Your task to perform on an android device: toggle translation in the chrome app Image 0: 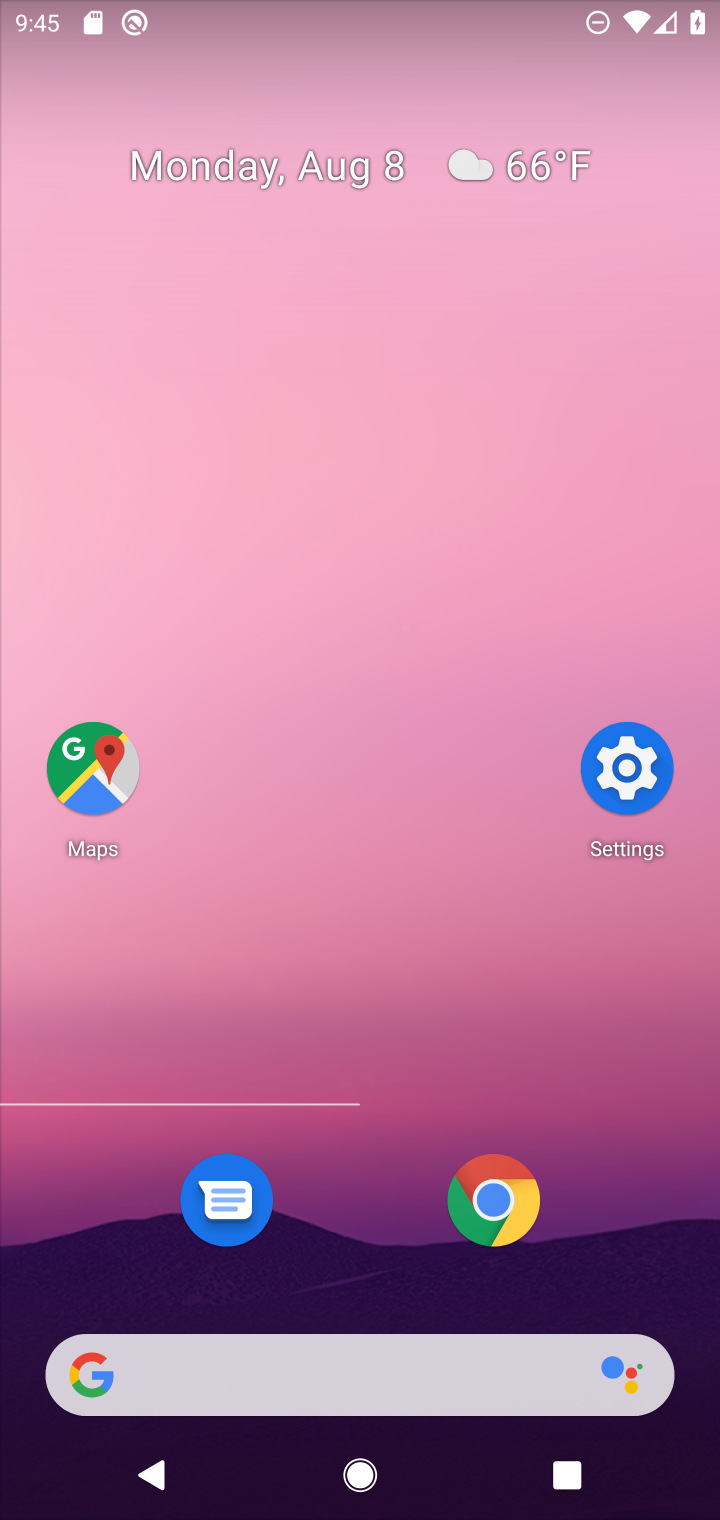
Step 0: press home button
Your task to perform on an android device: toggle translation in the chrome app Image 1: 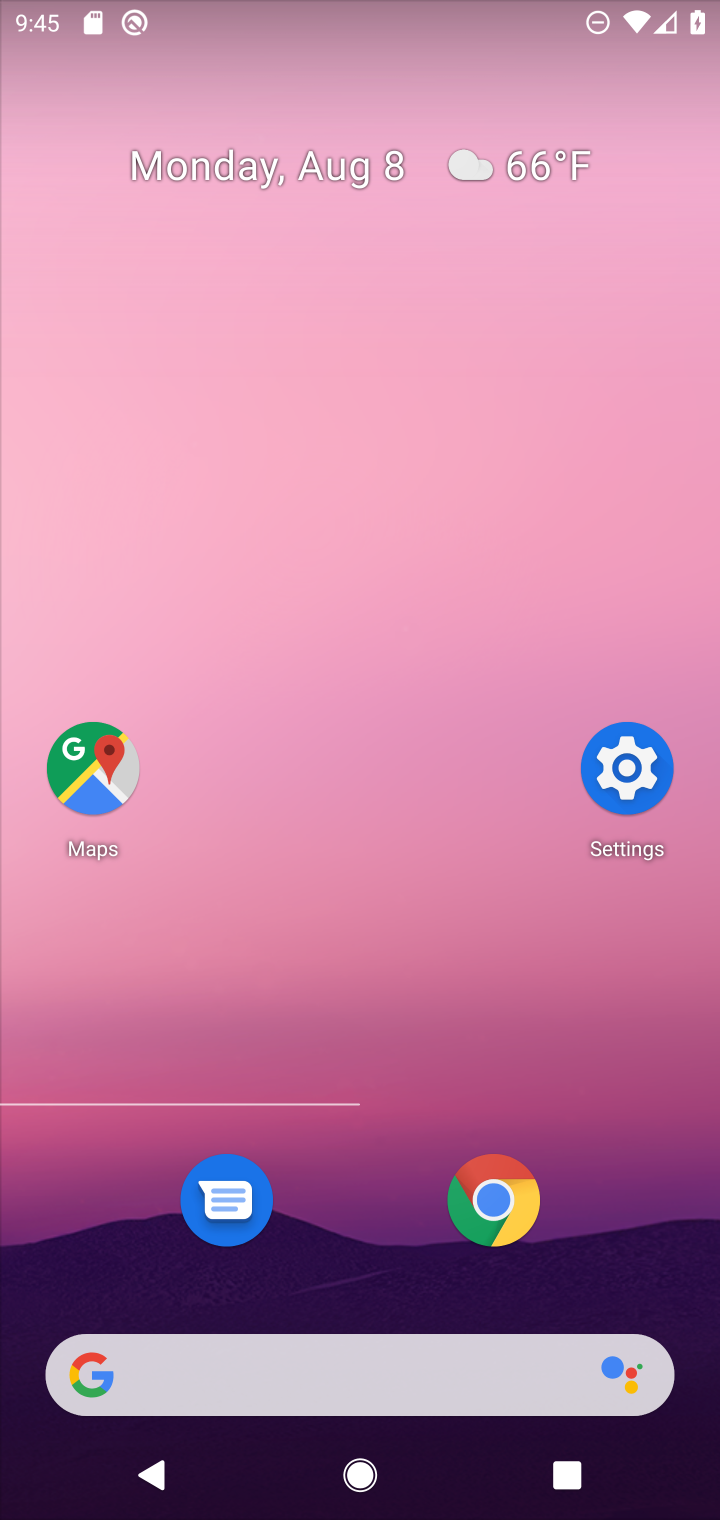
Step 1: click (491, 1202)
Your task to perform on an android device: toggle translation in the chrome app Image 2: 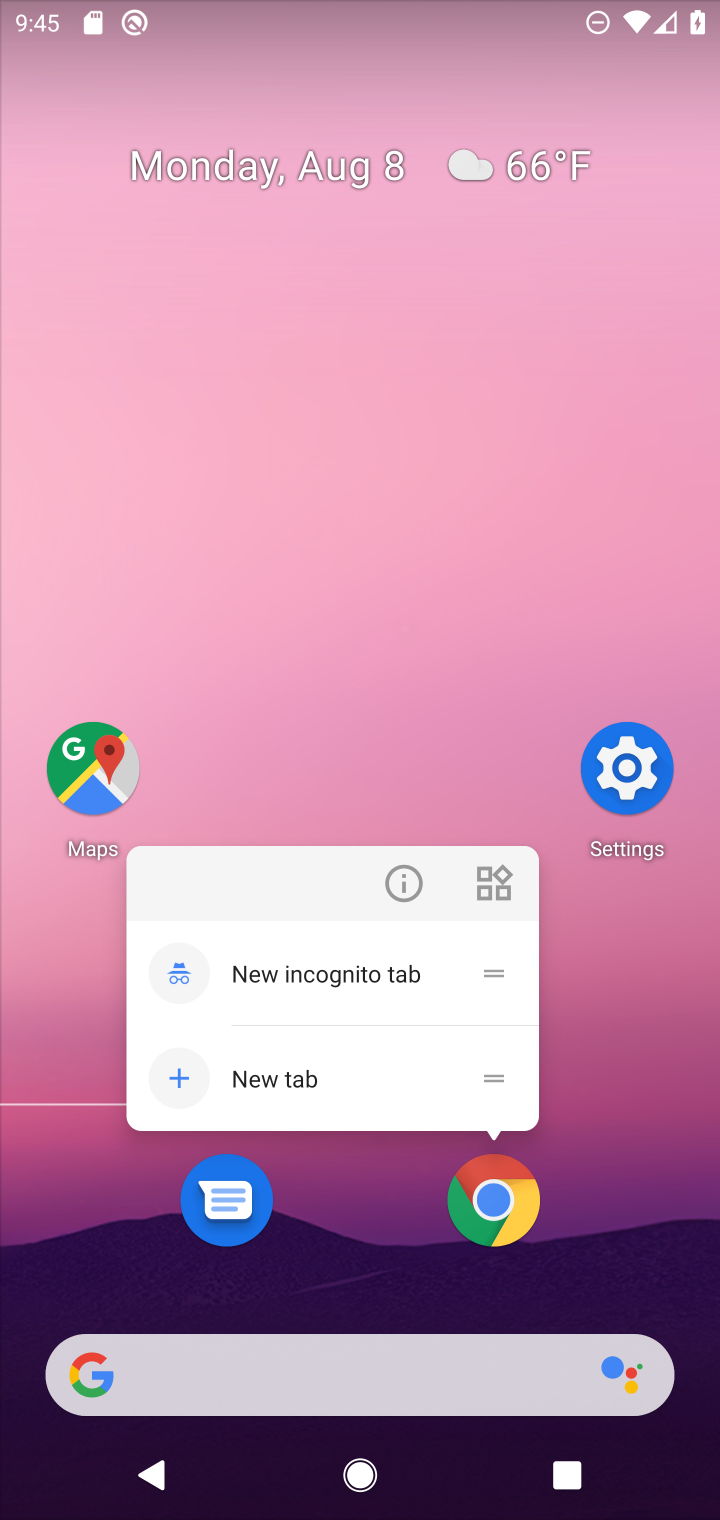
Step 2: click (491, 1204)
Your task to perform on an android device: toggle translation in the chrome app Image 3: 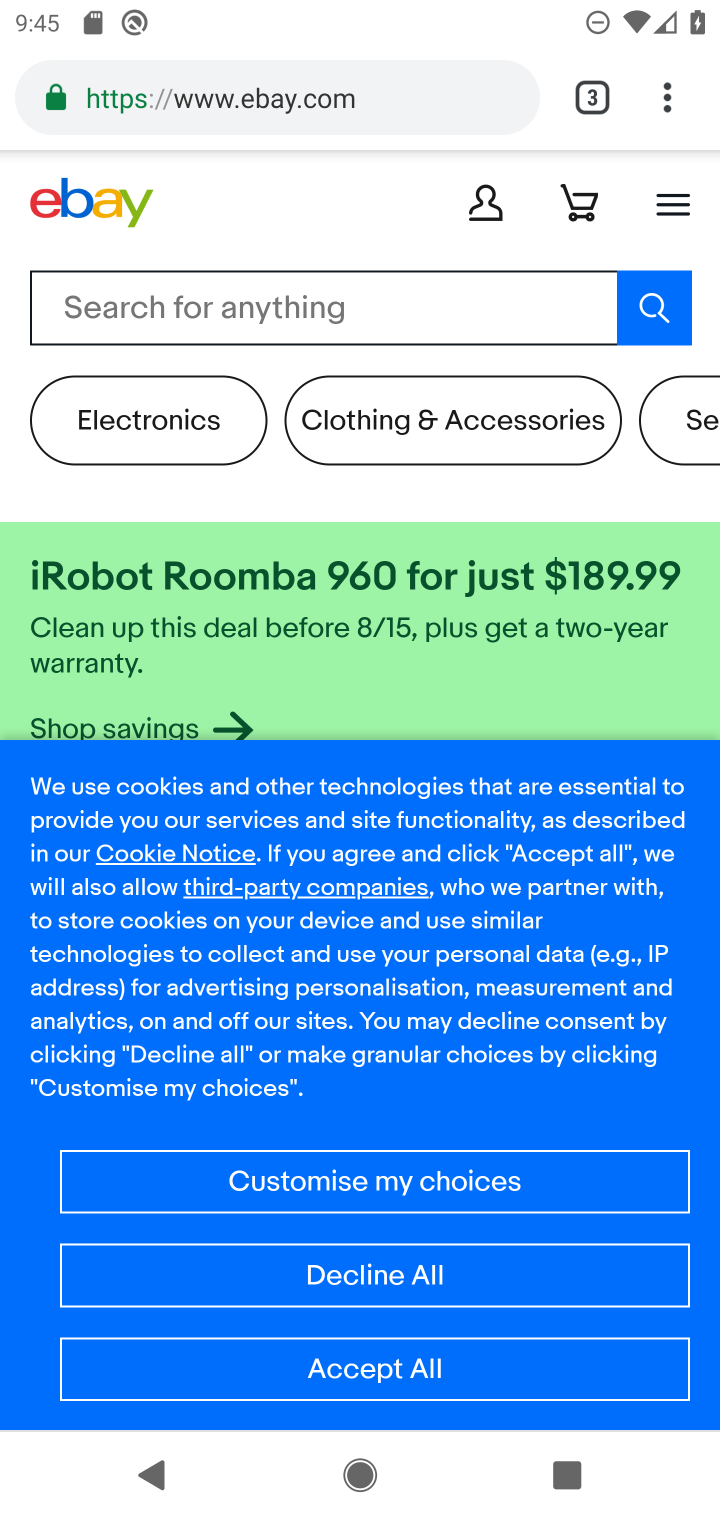
Step 3: drag from (664, 92) to (440, 1278)
Your task to perform on an android device: toggle translation in the chrome app Image 4: 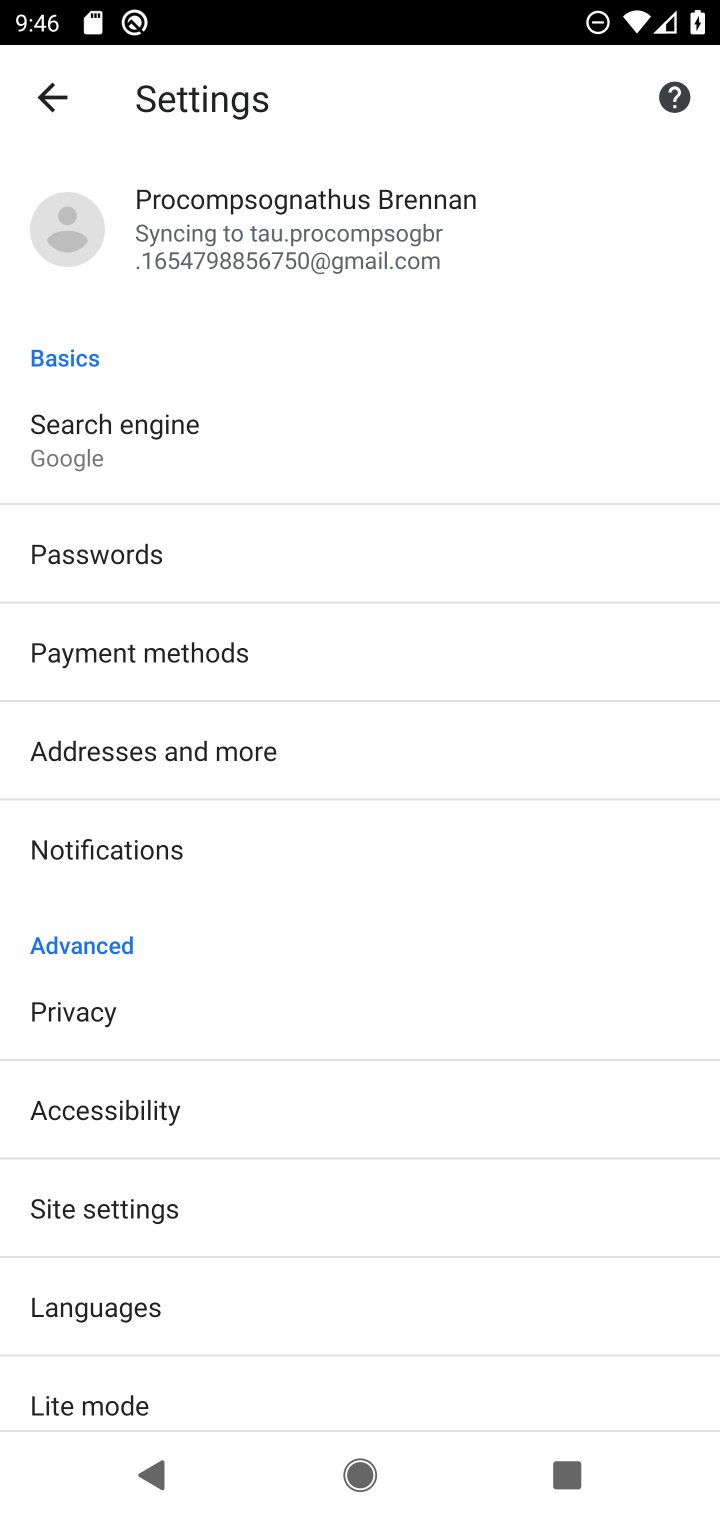
Step 4: drag from (377, 1210) to (558, 686)
Your task to perform on an android device: toggle translation in the chrome app Image 5: 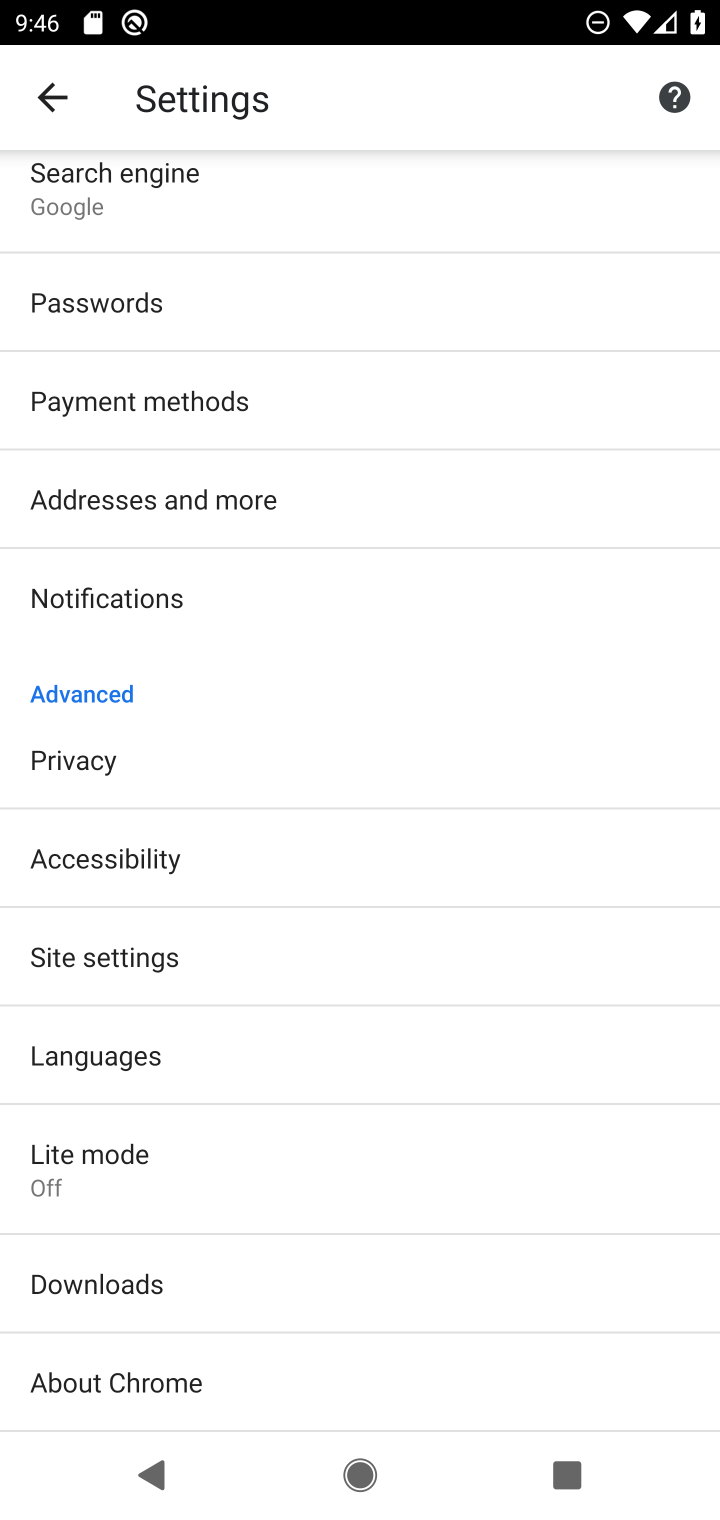
Step 5: click (123, 1041)
Your task to perform on an android device: toggle translation in the chrome app Image 6: 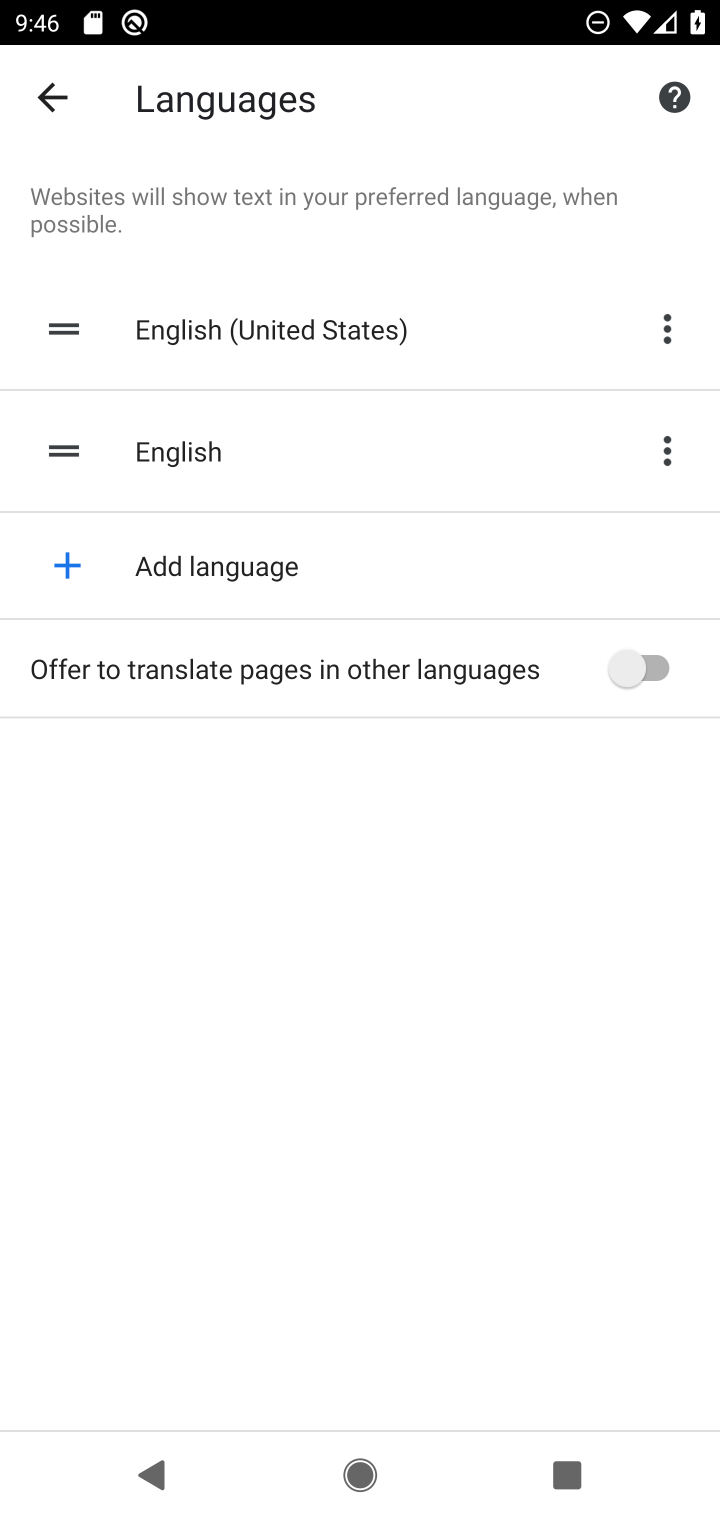
Step 6: click (651, 663)
Your task to perform on an android device: toggle translation in the chrome app Image 7: 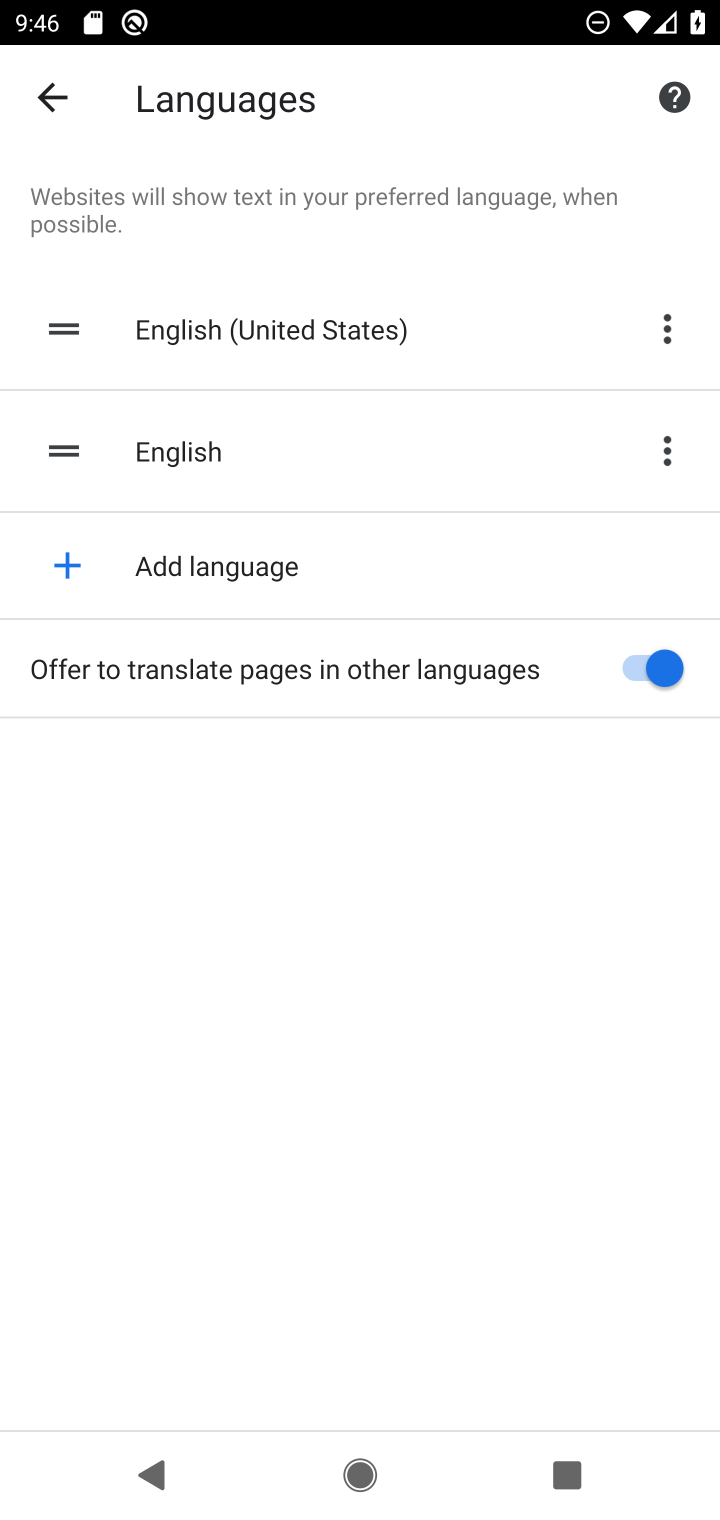
Step 7: task complete